Your task to perform on an android device: What is the news today? Image 0: 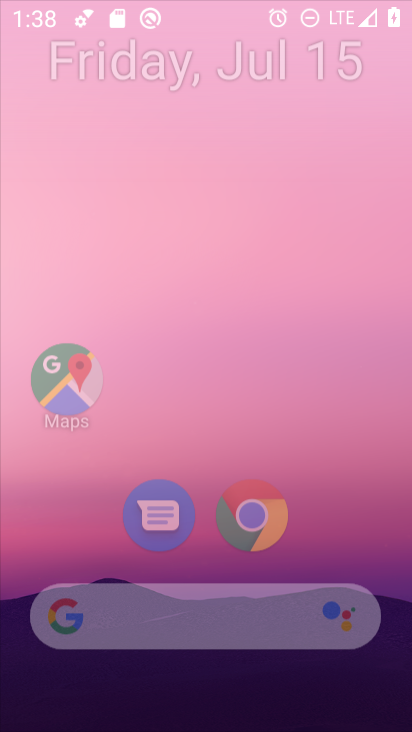
Step 0: press home button
Your task to perform on an android device: What is the news today? Image 1: 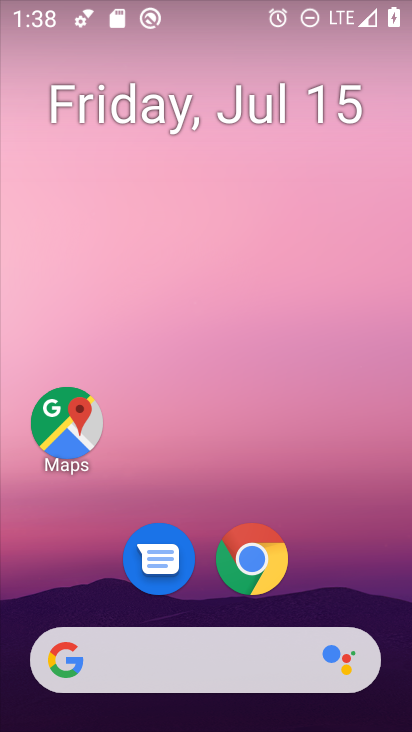
Step 1: task complete